Your task to perform on an android device: What's on my calendar tomorrow? Image 0: 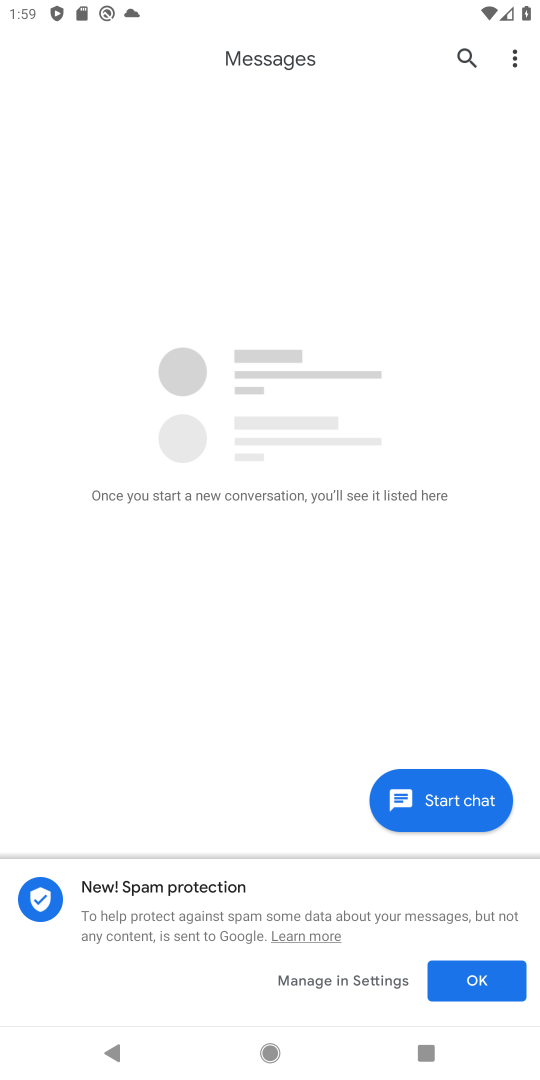
Step 0: press home button
Your task to perform on an android device: What's on my calendar tomorrow? Image 1: 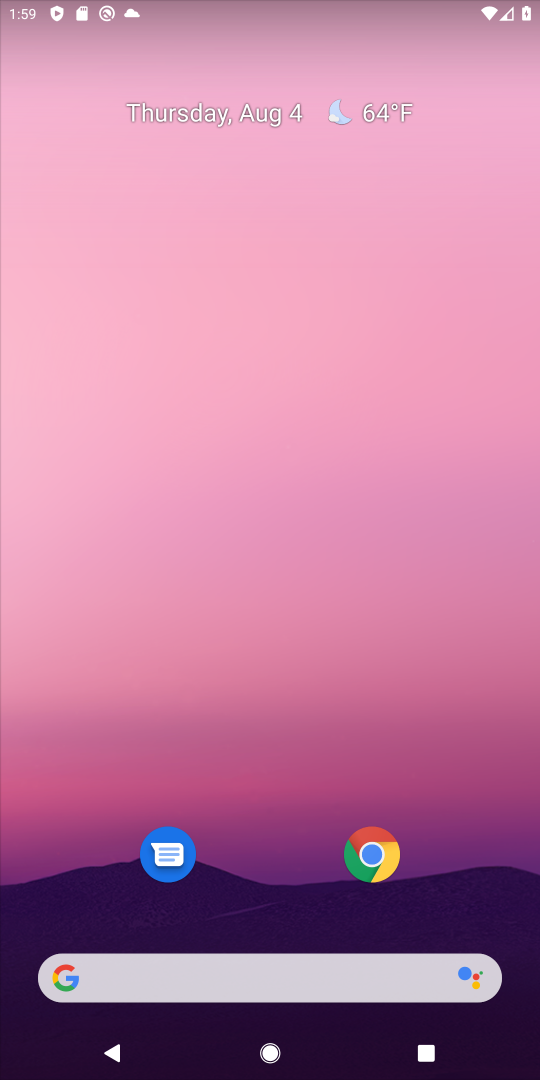
Step 1: drag from (299, 769) to (388, 359)
Your task to perform on an android device: What's on my calendar tomorrow? Image 2: 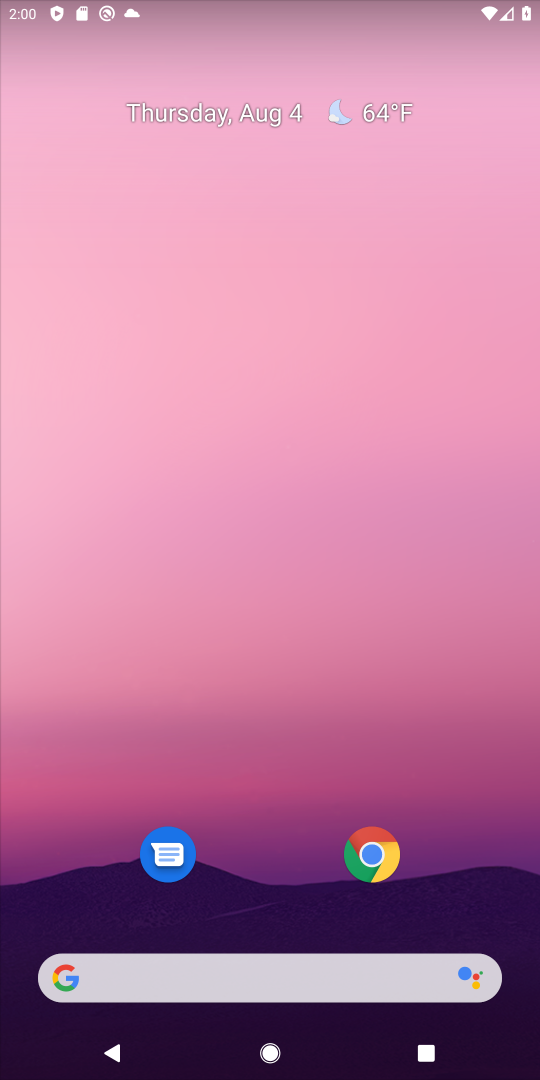
Step 2: drag from (286, 737) to (345, 20)
Your task to perform on an android device: What's on my calendar tomorrow? Image 3: 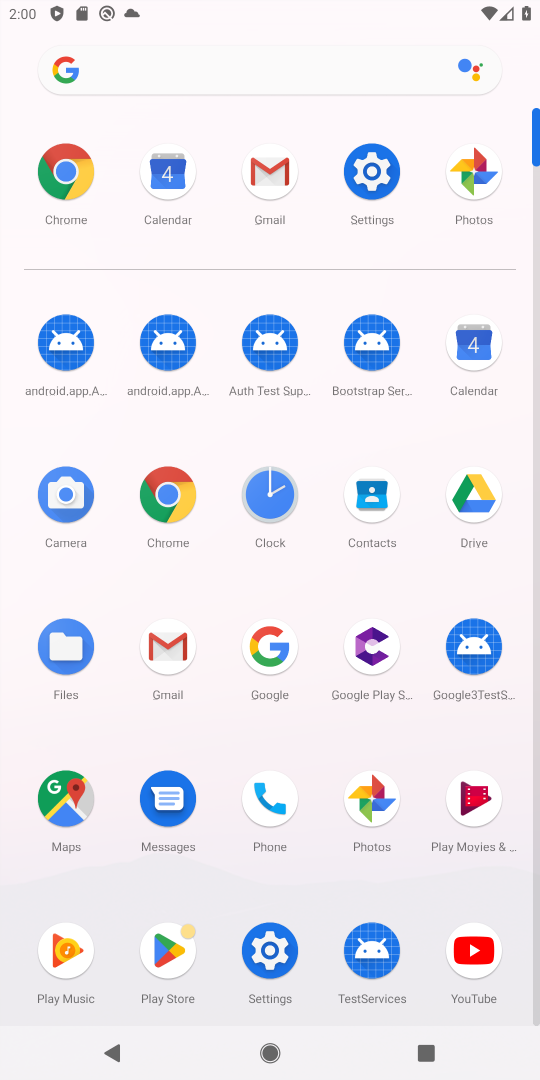
Step 3: click (475, 344)
Your task to perform on an android device: What's on my calendar tomorrow? Image 4: 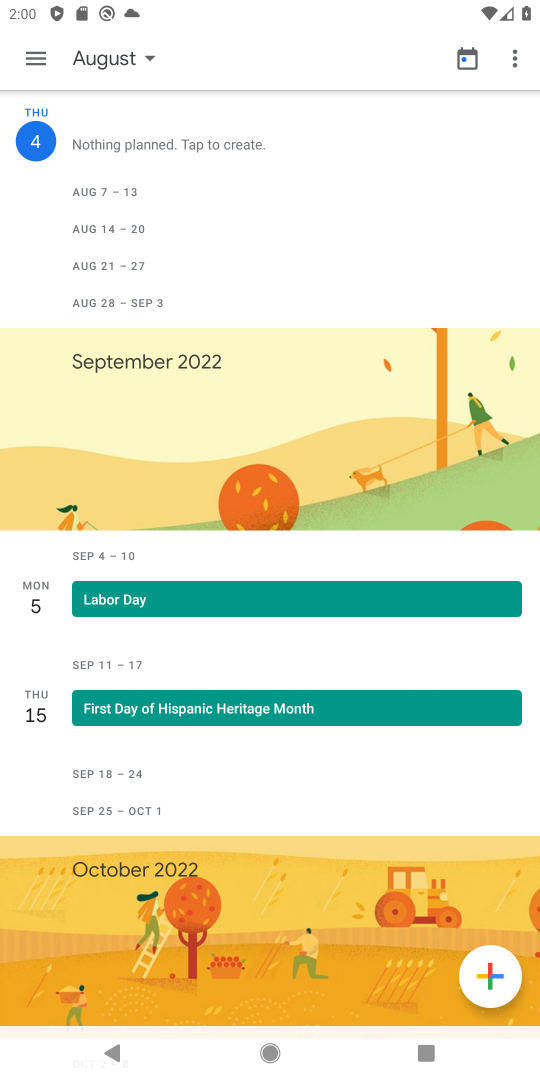
Step 4: task complete